Your task to perform on an android device: Search for pizza restaurants on Maps Image 0: 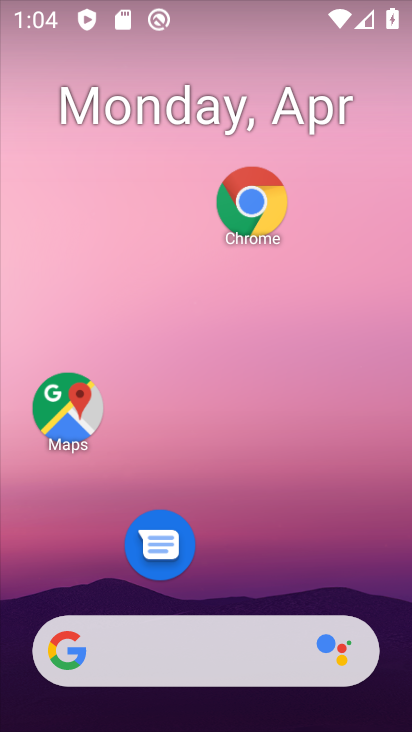
Step 0: click (75, 400)
Your task to perform on an android device: Search for pizza restaurants on Maps Image 1: 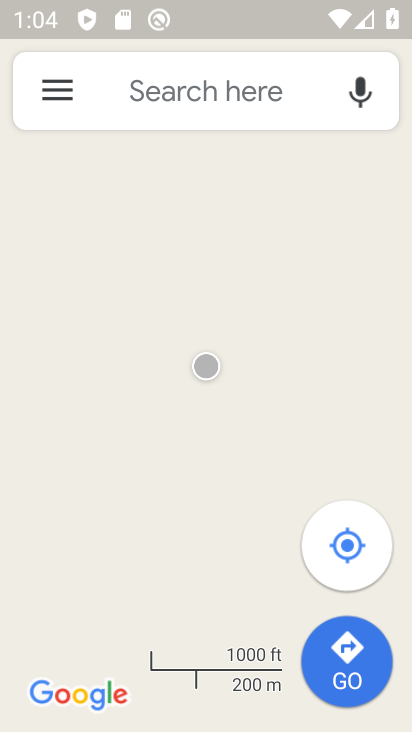
Step 1: click (194, 109)
Your task to perform on an android device: Search for pizza restaurants on Maps Image 2: 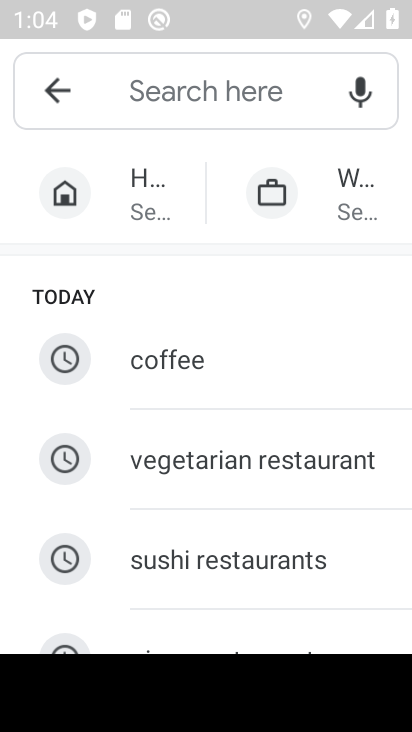
Step 2: type "pizza restaurant"
Your task to perform on an android device: Search for pizza restaurants on Maps Image 3: 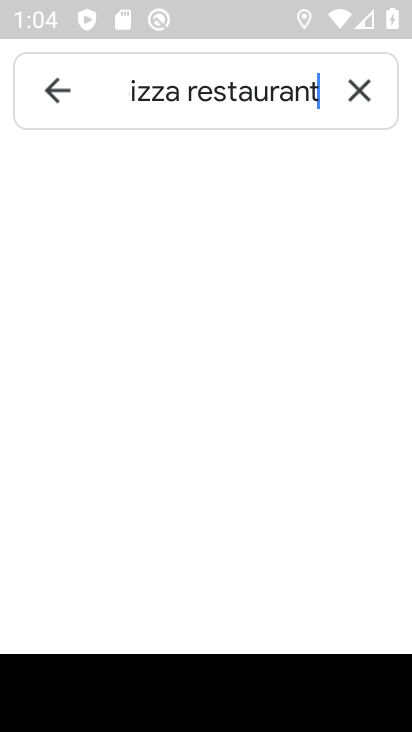
Step 3: type ""
Your task to perform on an android device: Search for pizza restaurants on Maps Image 4: 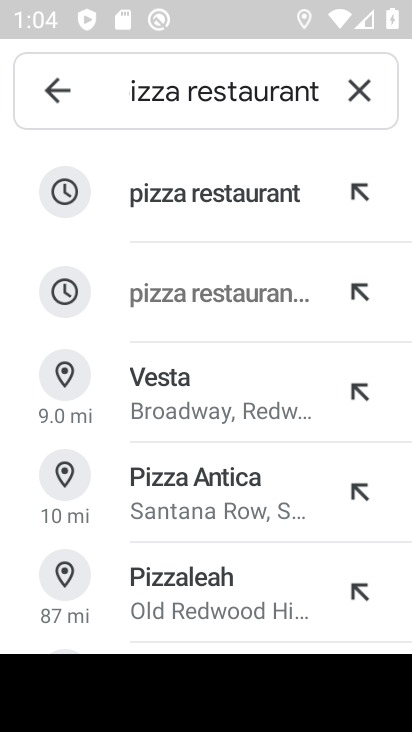
Step 4: click (164, 212)
Your task to perform on an android device: Search for pizza restaurants on Maps Image 5: 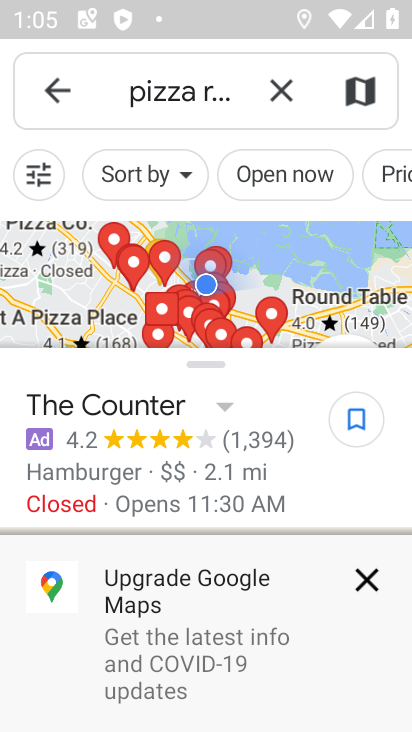
Step 5: task complete